Your task to perform on an android device: Play the last video I watched on Youtube Image 0: 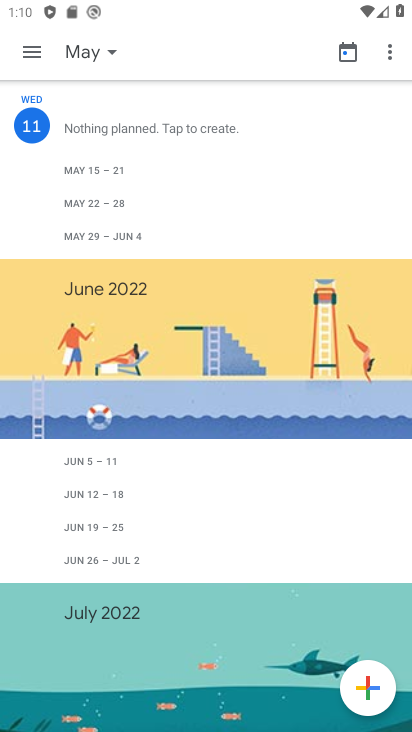
Step 0: press home button
Your task to perform on an android device: Play the last video I watched on Youtube Image 1: 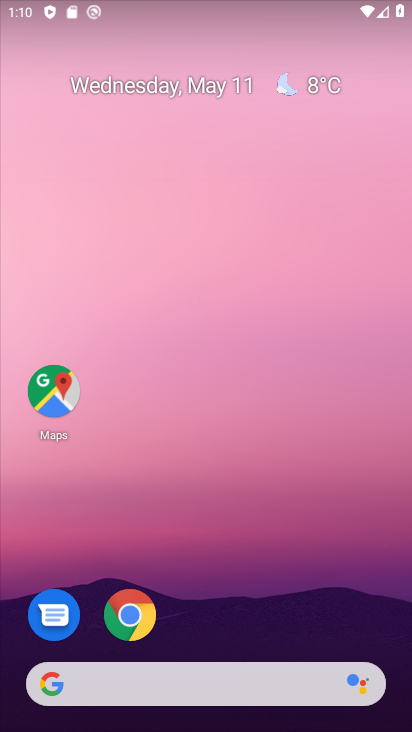
Step 1: drag from (287, 482) to (337, 0)
Your task to perform on an android device: Play the last video I watched on Youtube Image 2: 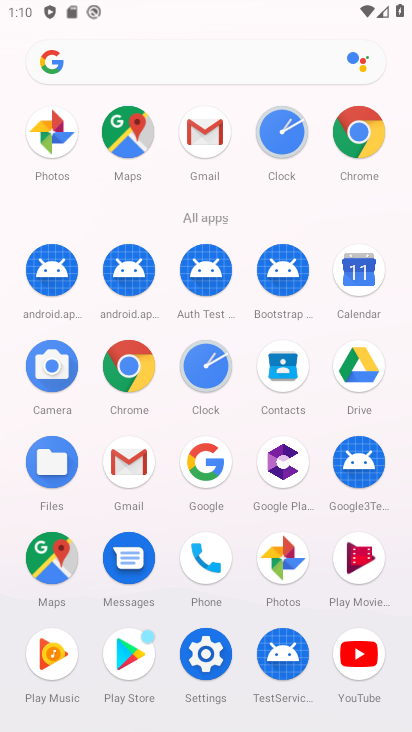
Step 2: click (374, 656)
Your task to perform on an android device: Play the last video I watched on Youtube Image 3: 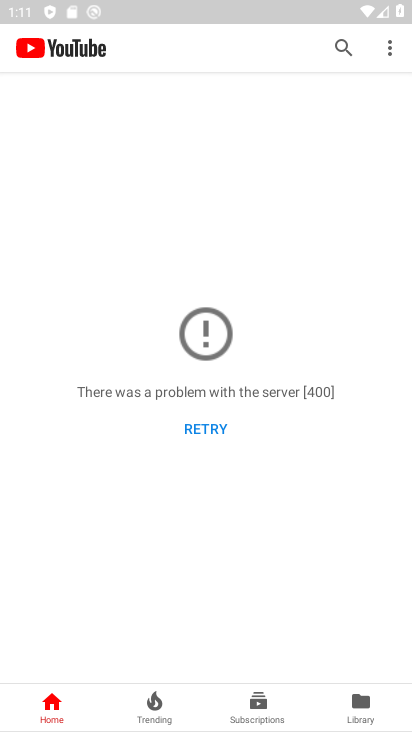
Step 3: click (383, 714)
Your task to perform on an android device: Play the last video I watched on Youtube Image 4: 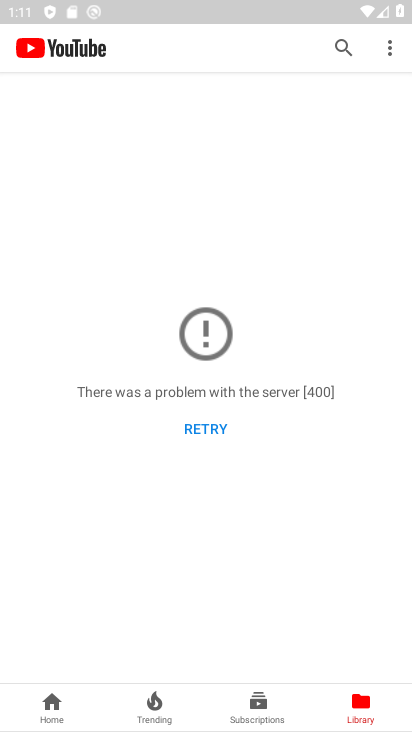
Step 4: click (221, 422)
Your task to perform on an android device: Play the last video I watched on Youtube Image 5: 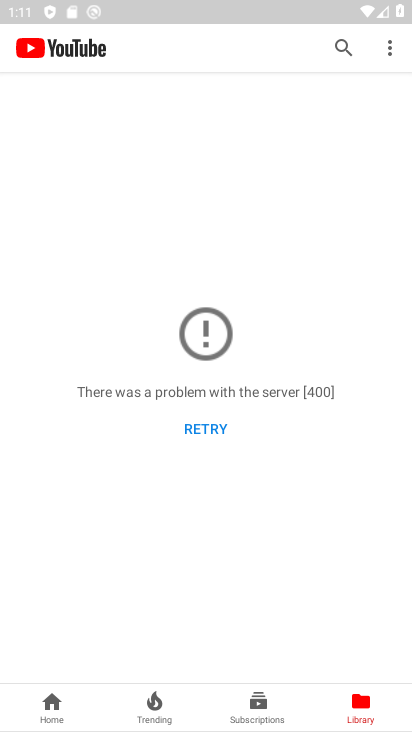
Step 5: click (202, 432)
Your task to perform on an android device: Play the last video I watched on Youtube Image 6: 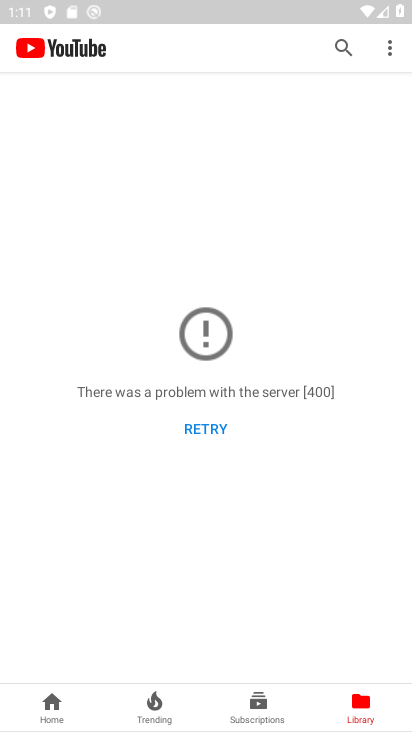
Step 6: click (212, 424)
Your task to perform on an android device: Play the last video I watched on Youtube Image 7: 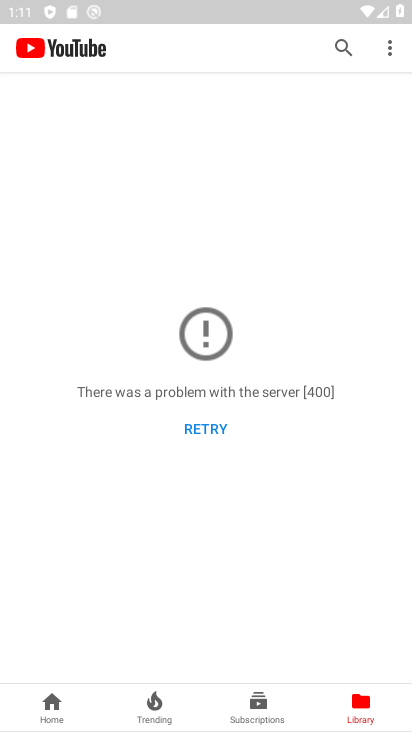
Step 7: click (212, 424)
Your task to perform on an android device: Play the last video I watched on Youtube Image 8: 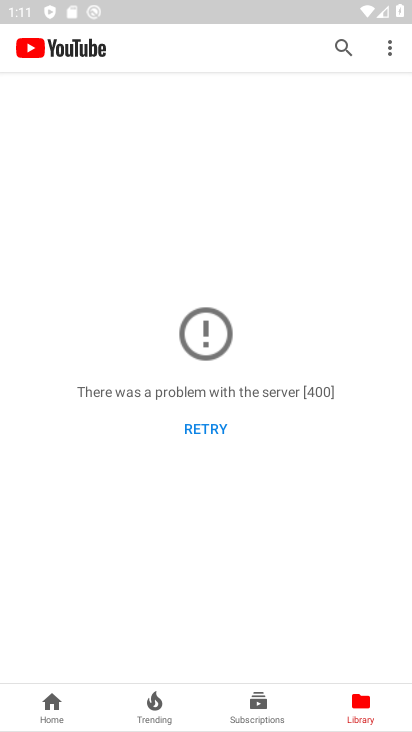
Step 8: task complete